Your task to perform on an android device: When is my next appointment? Image 0: 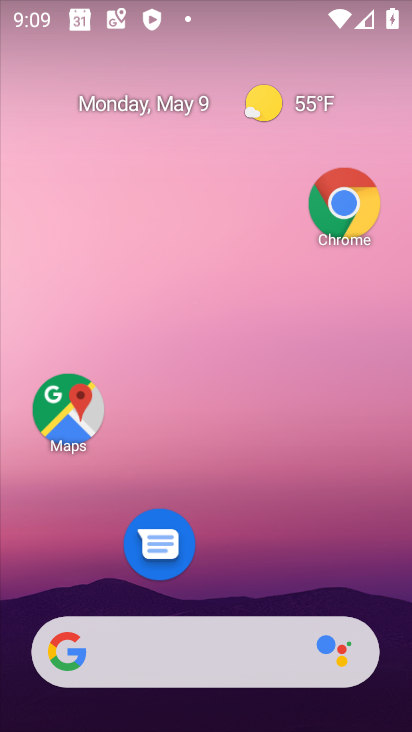
Step 0: drag from (219, 572) to (219, 252)
Your task to perform on an android device: When is my next appointment? Image 1: 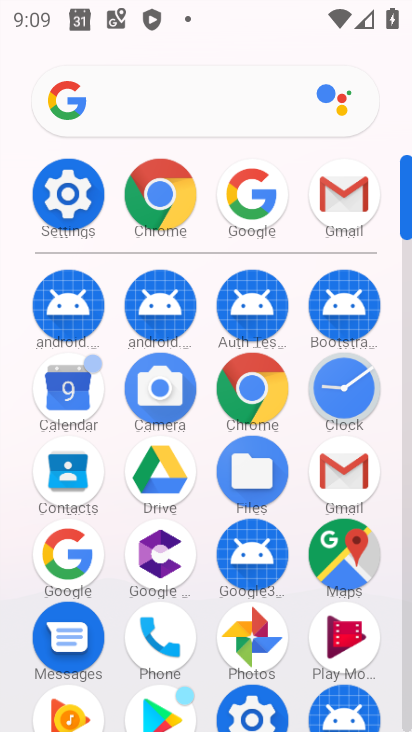
Step 1: click (59, 404)
Your task to perform on an android device: When is my next appointment? Image 2: 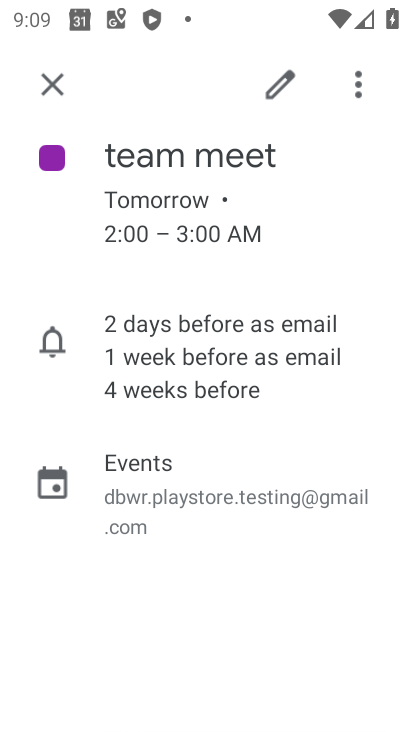
Step 2: click (61, 83)
Your task to perform on an android device: When is my next appointment? Image 3: 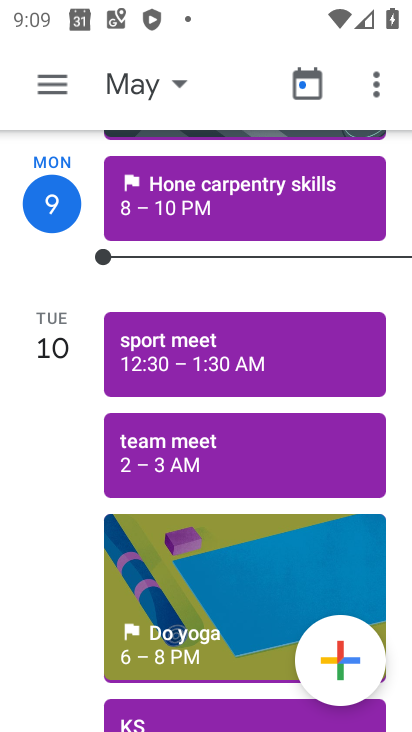
Step 3: task complete